Your task to perform on an android device: Open settings Image 0: 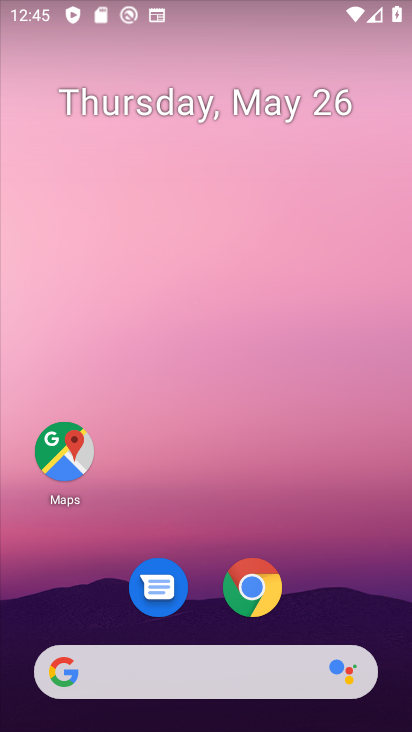
Step 0: drag from (375, 619) to (351, 135)
Your task to perform on an android device: Open settings Image 1: 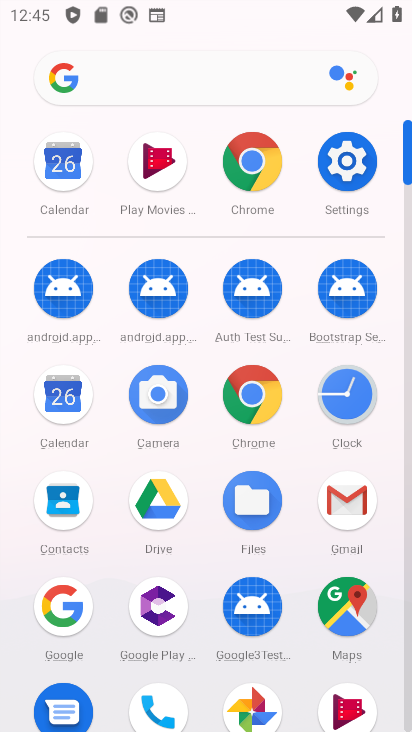
Step 1: click (344, 169)
Your task to perform on an android device: Open settings Image 2: 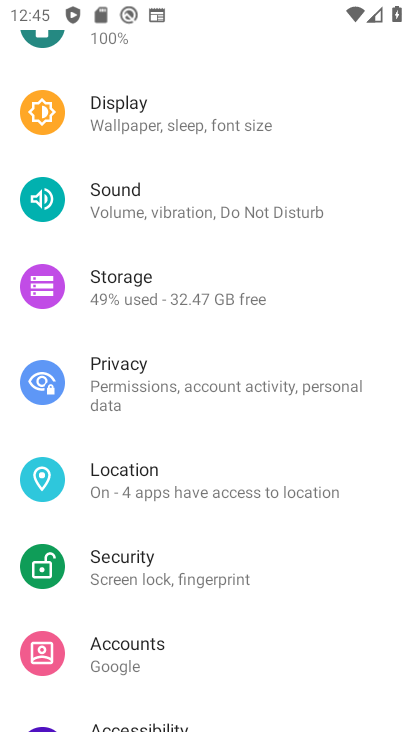
Step 2: task complete